Your task to perform on an android device: find snoozed emails in the gmail app Image 0: 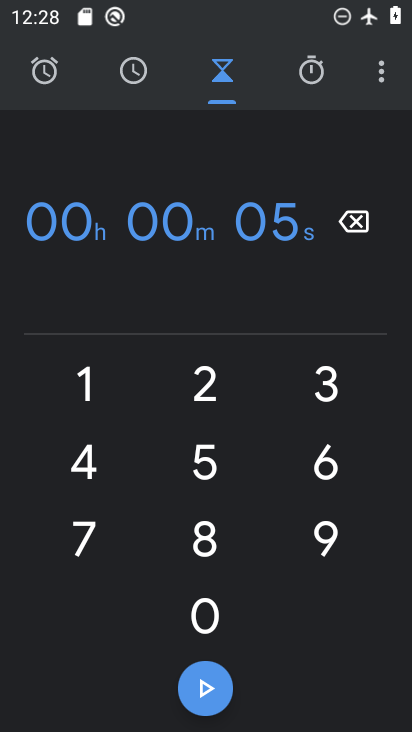
Step 0: press home button
Your task to perform on an android device: find snoozed emails in the gmail app Image 1: 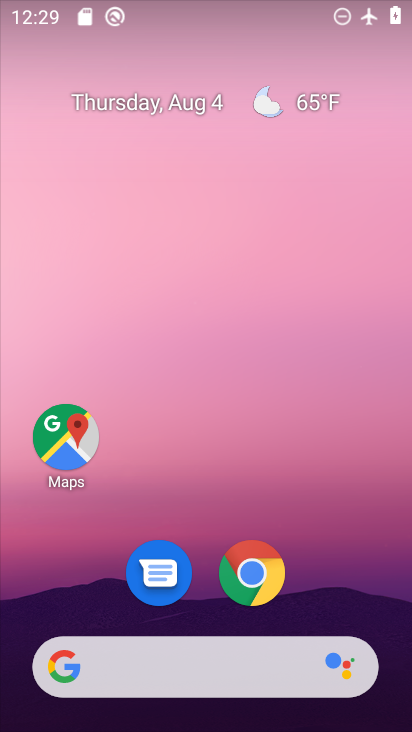
Step 1: drag from (352, 596) to (267, 78)
Your task to perform on an android device: find snoozed emails in the gmail app Image 2: 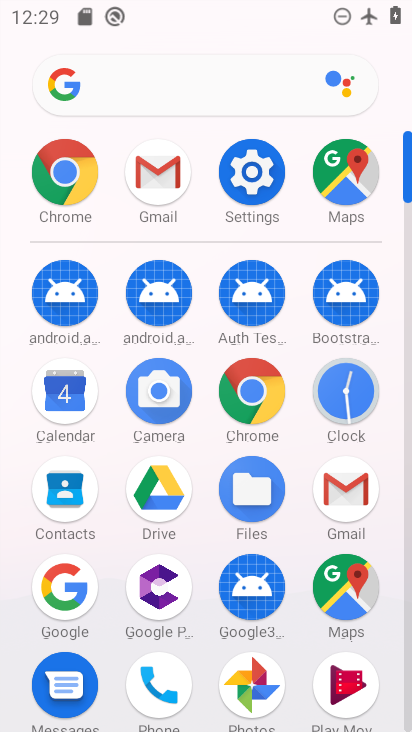
Step 2: click (350, 487)
Your task to perform on an android device: find snoozed emails in the gmail app Image 3: 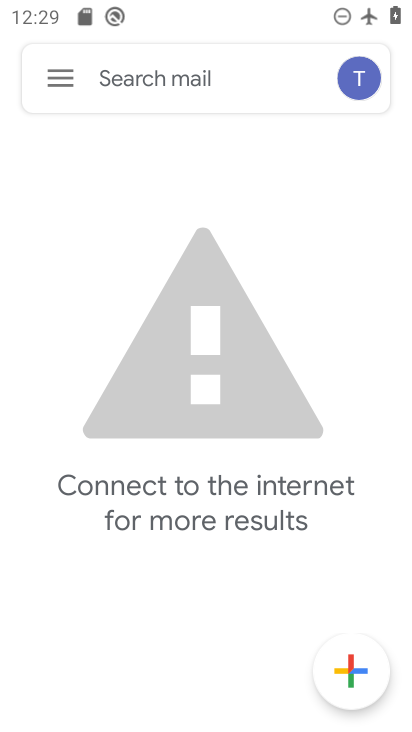
Step 3: click (54, 72)
Your task to perform on an android device: find snoozed emails in the gmail app Image 4: 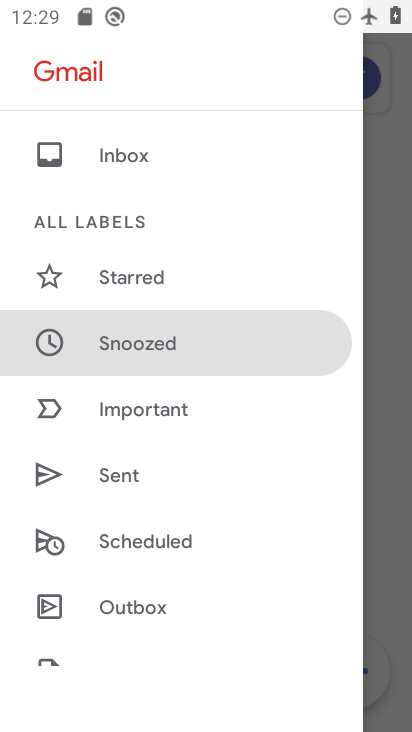
Step 4: click (402, 266)
Your task to perform on an android device: find snoozed emails in the gmail app Image 5: 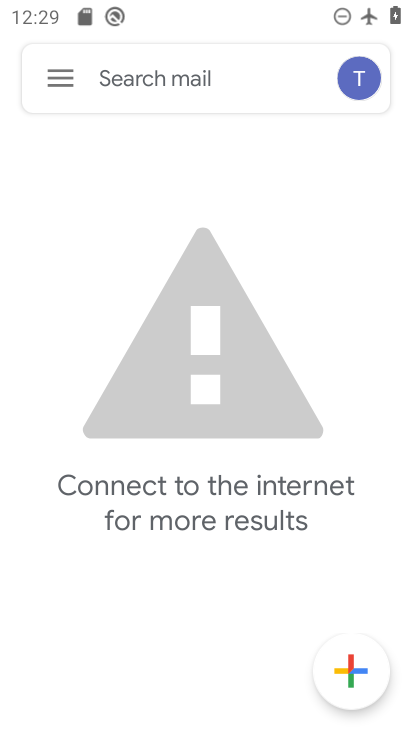
Step 5: task complete